Your task to perform on an android device: Search for Mexican restaurants on Maps Image 0: 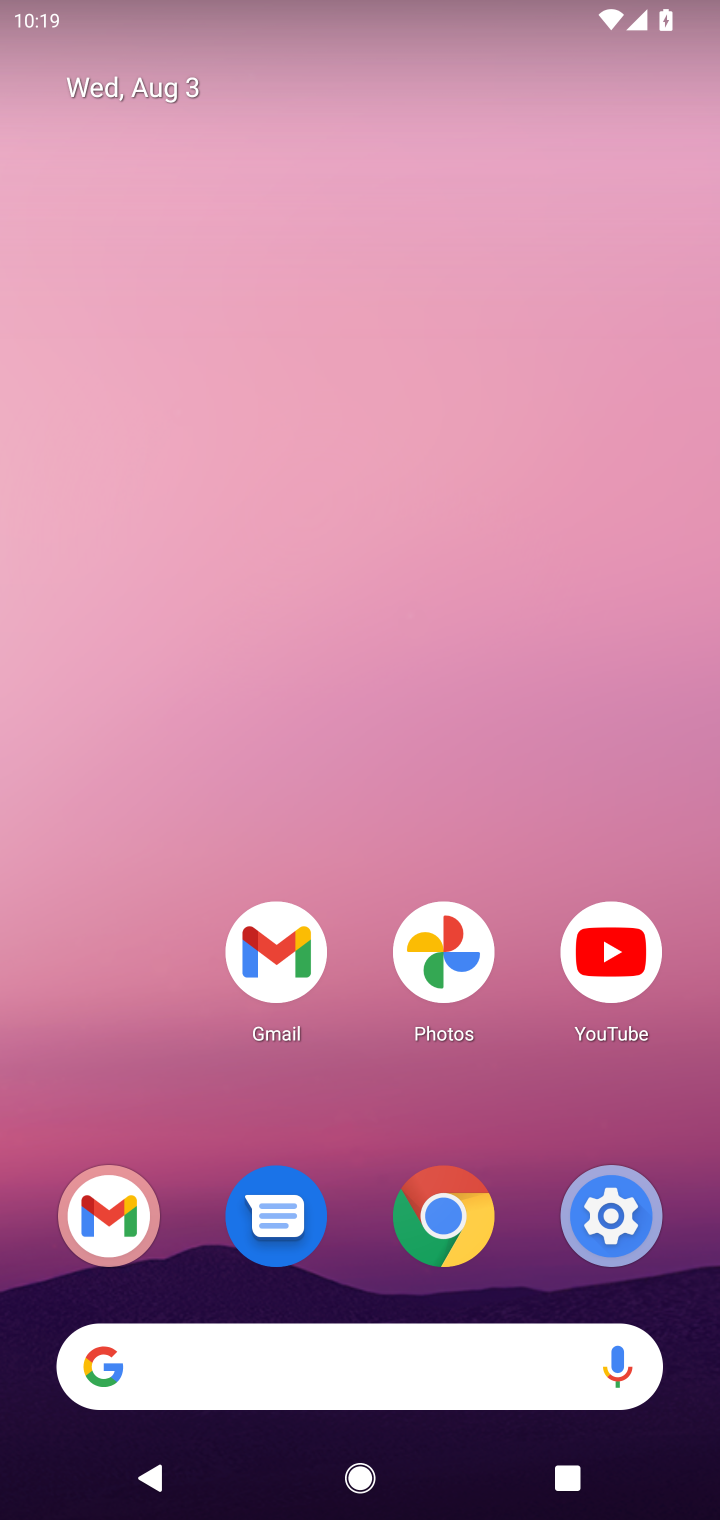
Step 0: drag from (200, 1041) to (189, 42)
Your task to perform on an android device: Search for Mexican restaurants on Maps Image 1: 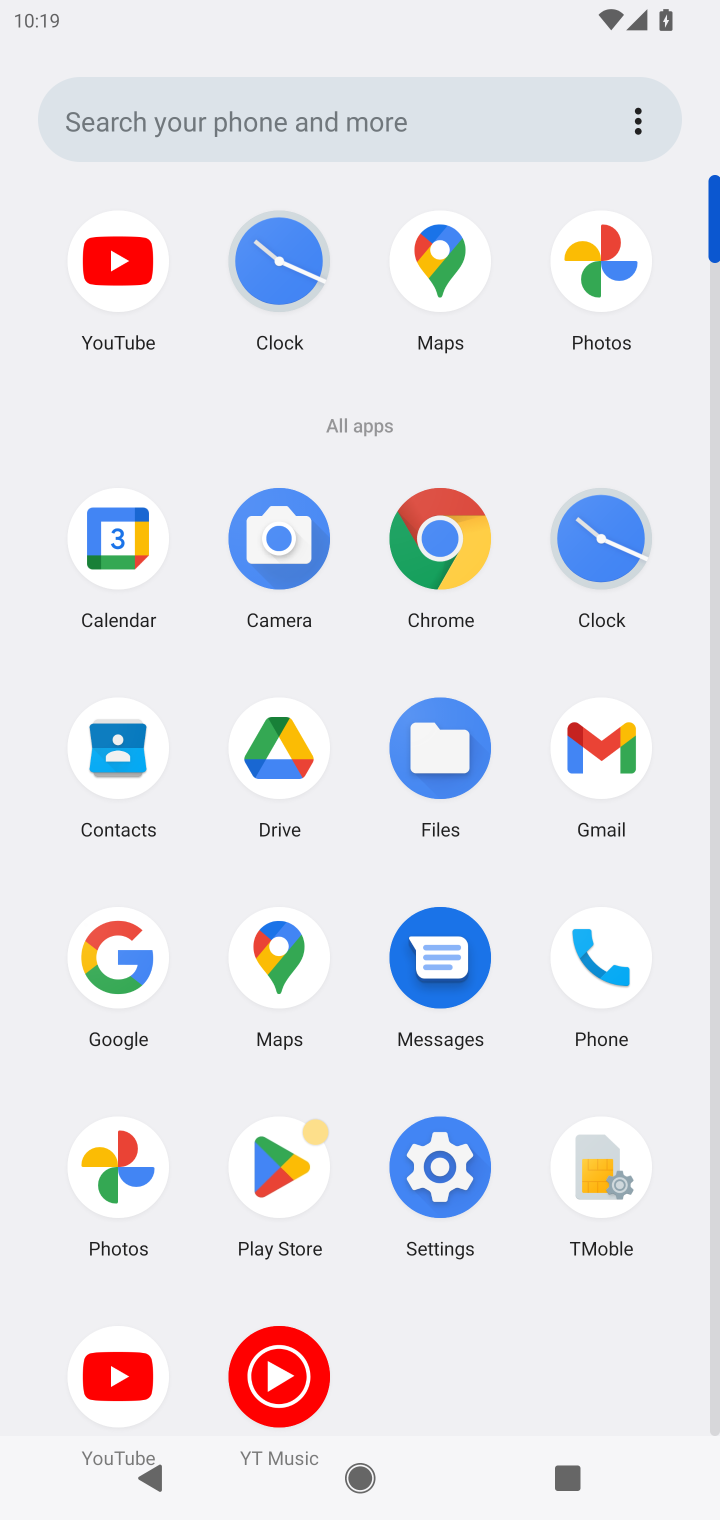
Step 1: click (455, 272)
Your task to perform on an android device: Search for Mexican restaurants on Maps Image 2: 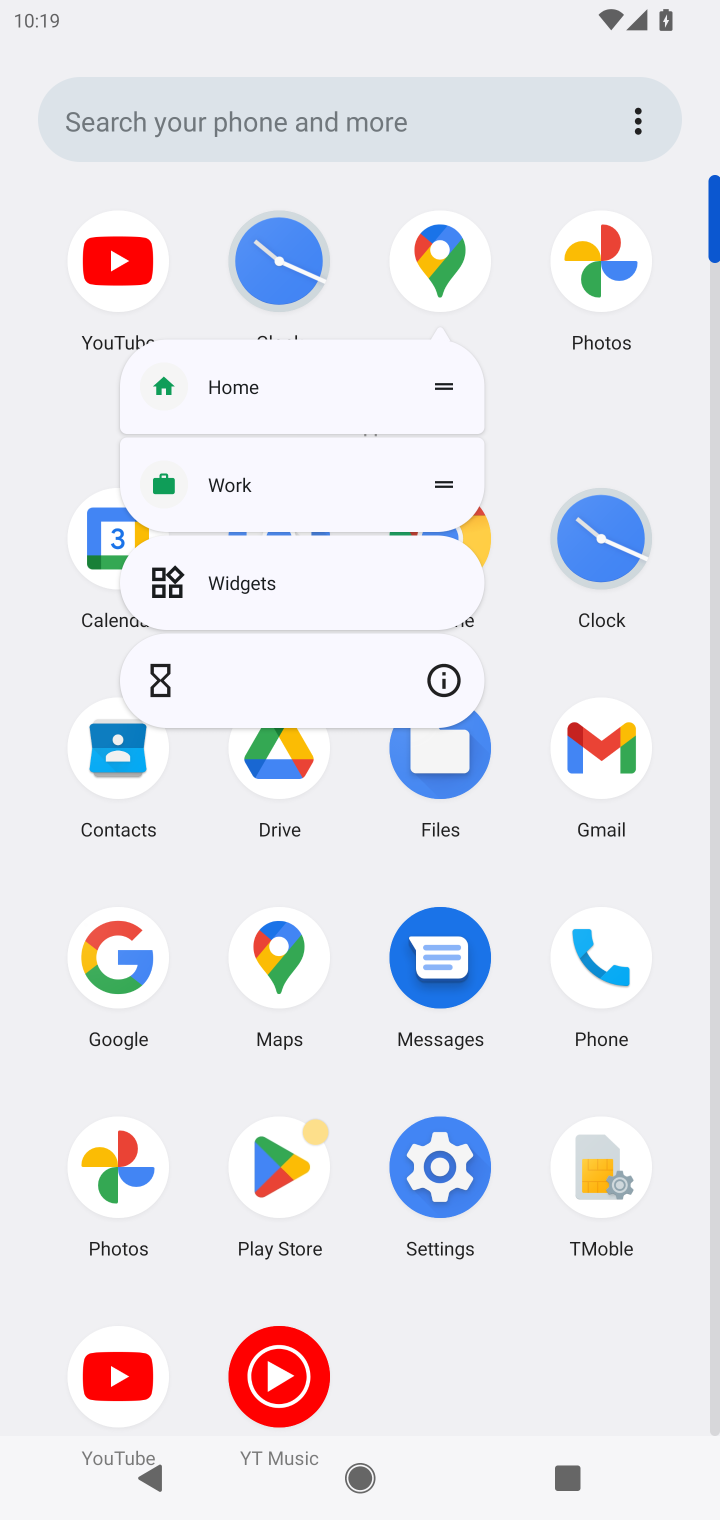
Step 2: click (449, 273)
Your task to perform on an android device: Search for Mexican restaurants on Maps Image 3: 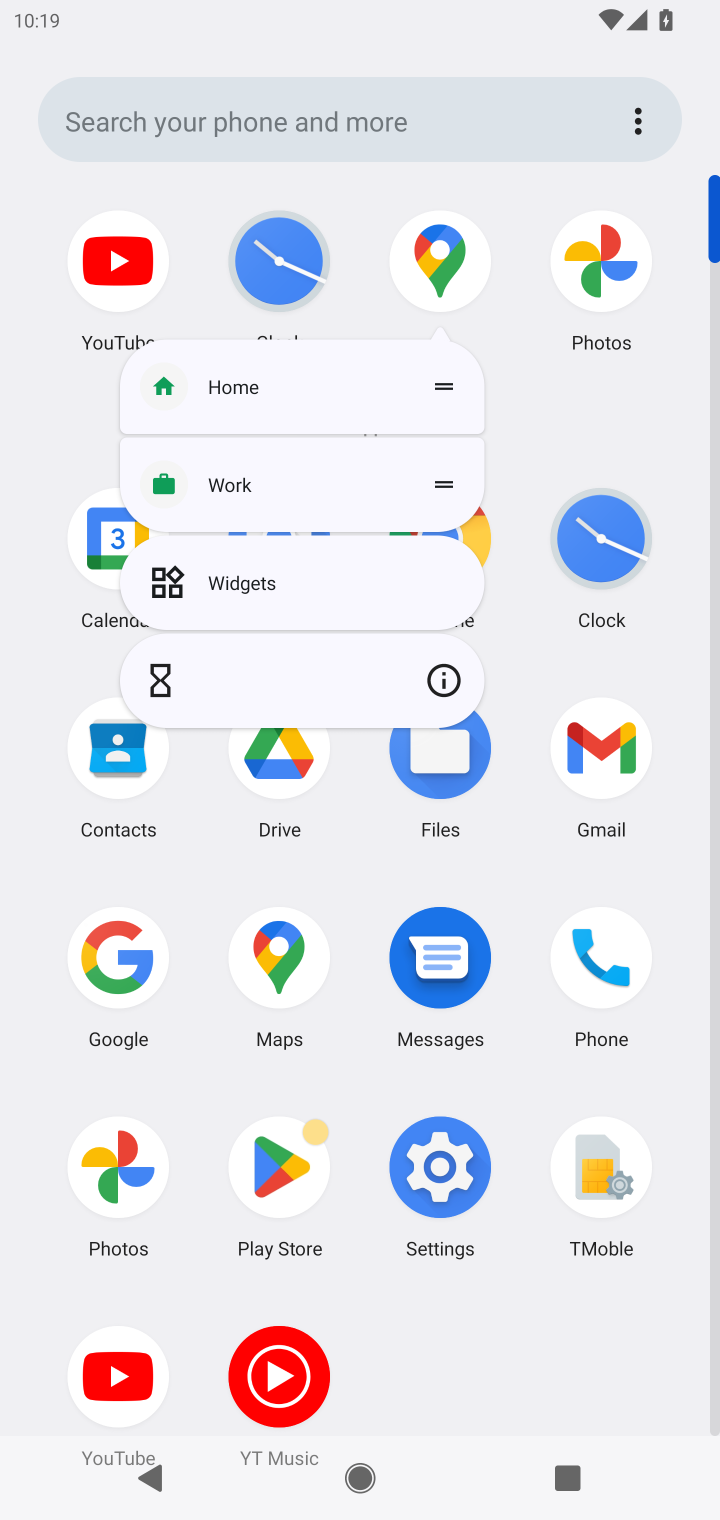
Step 3: click (440, 281)
Your task to perform on an android device: Search for Mexican restaurants on Maps Image 4: 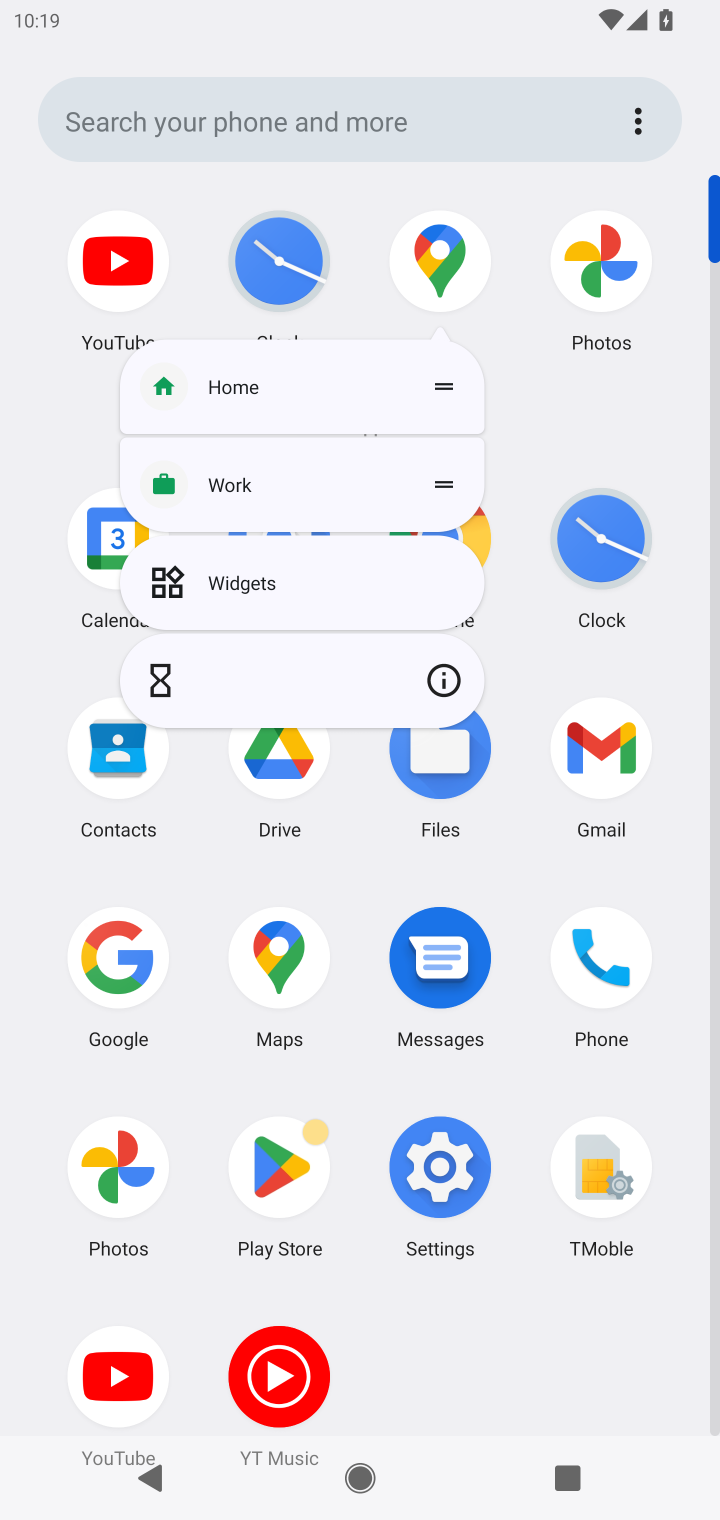
Step 4: click (432, 263)
Your task to perform on an android device: Search for Mexican restaurants on Maps Image 5: 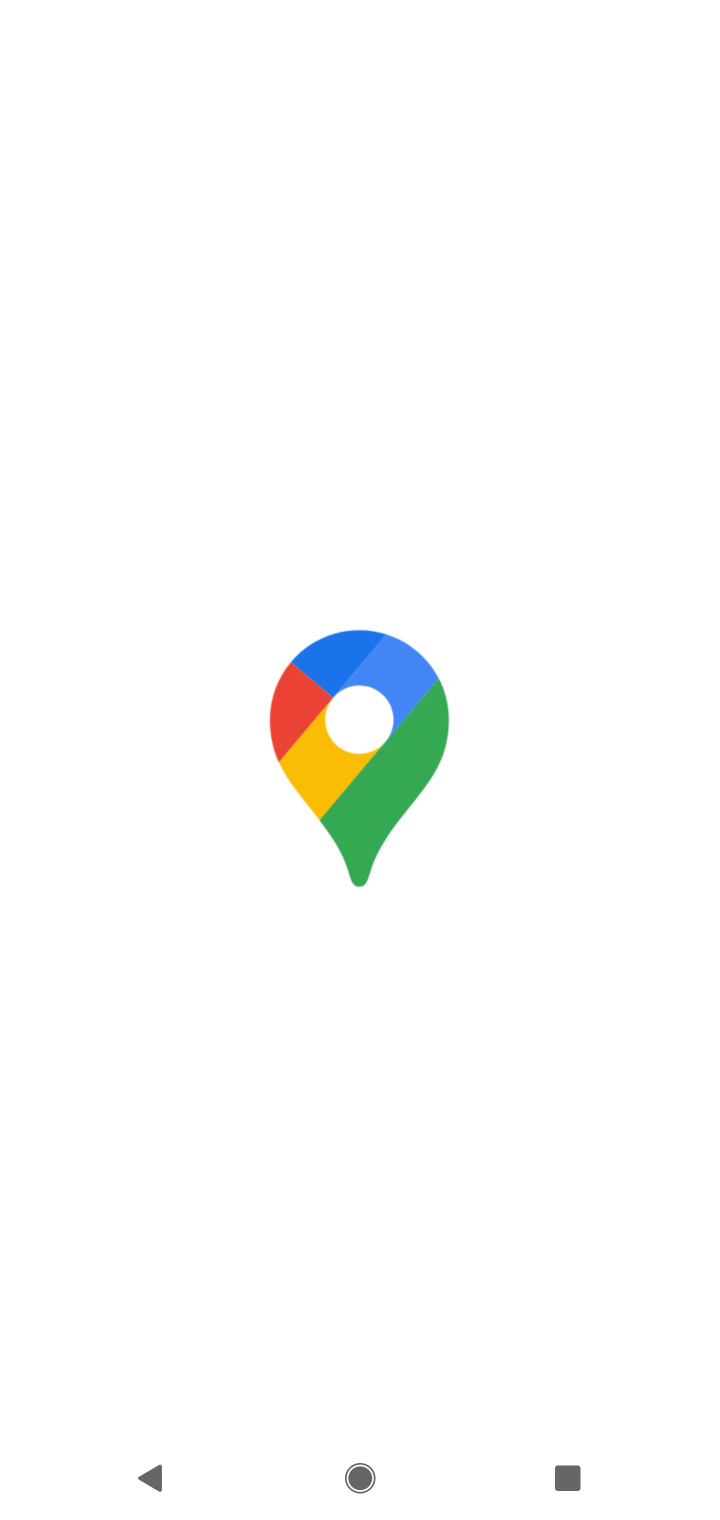
Step 5: task complete